Your task to perform on an android device: open sync settings in chrome Image 0: 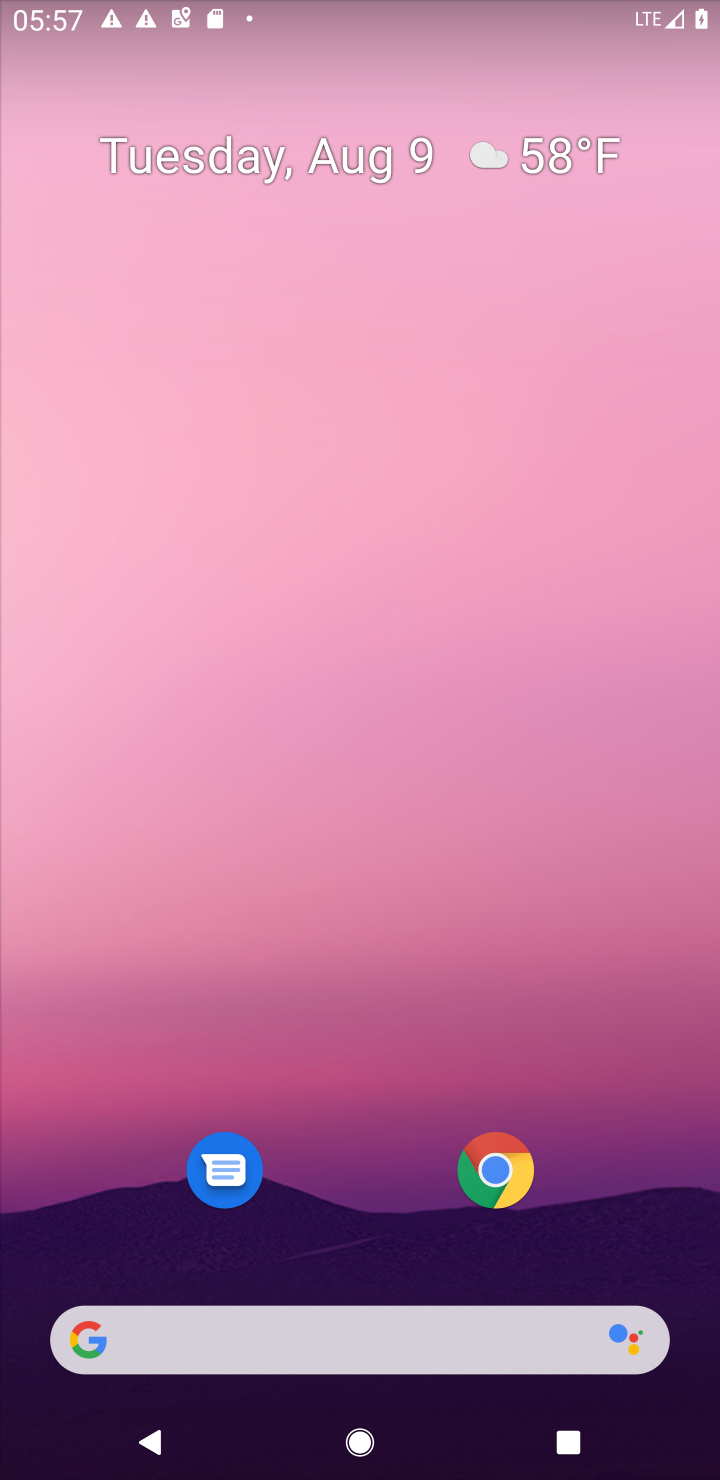
Step 0: press home button
Your task to perform on an android device: open sync settings in chrome Image 1: 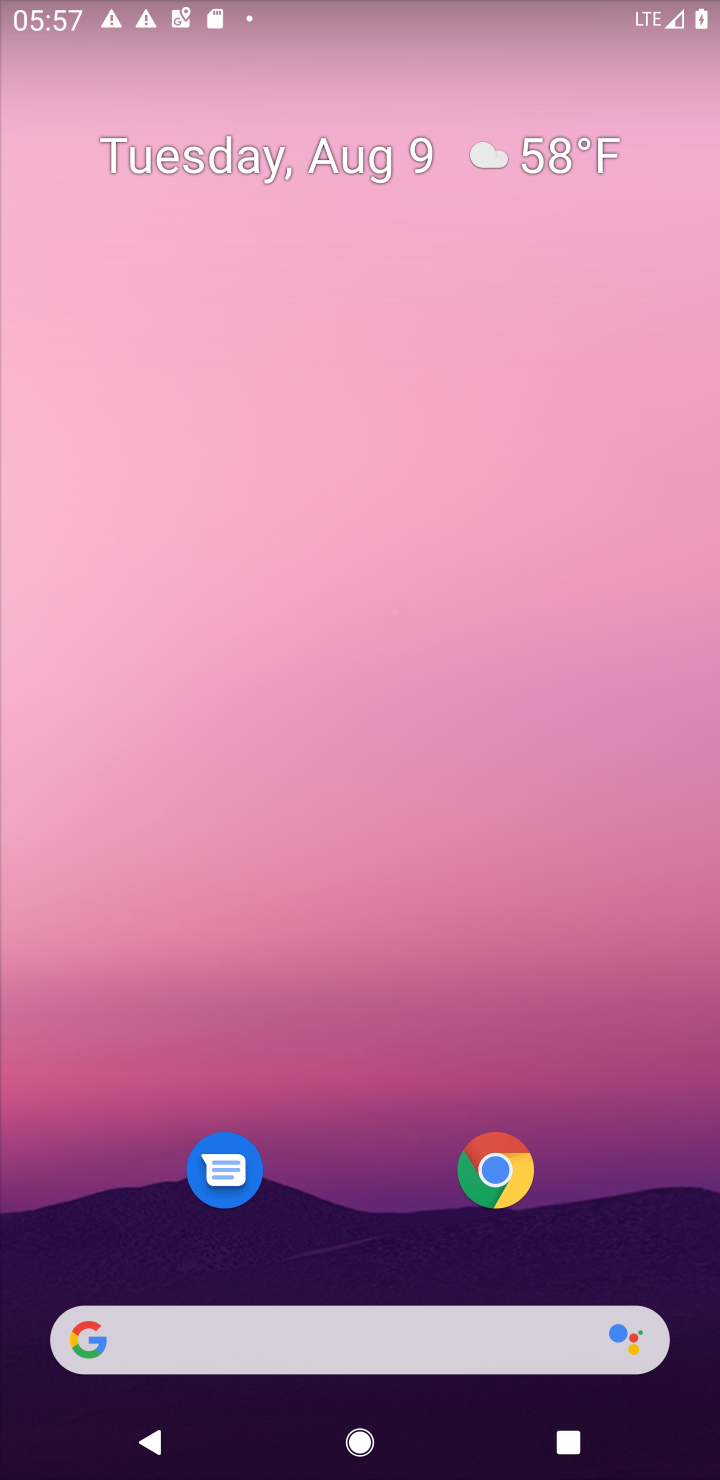
Step 1: drag from (358, 1271) to (456, 6)
Your task to perform on an android device: open sync settings in chrome Image 2: 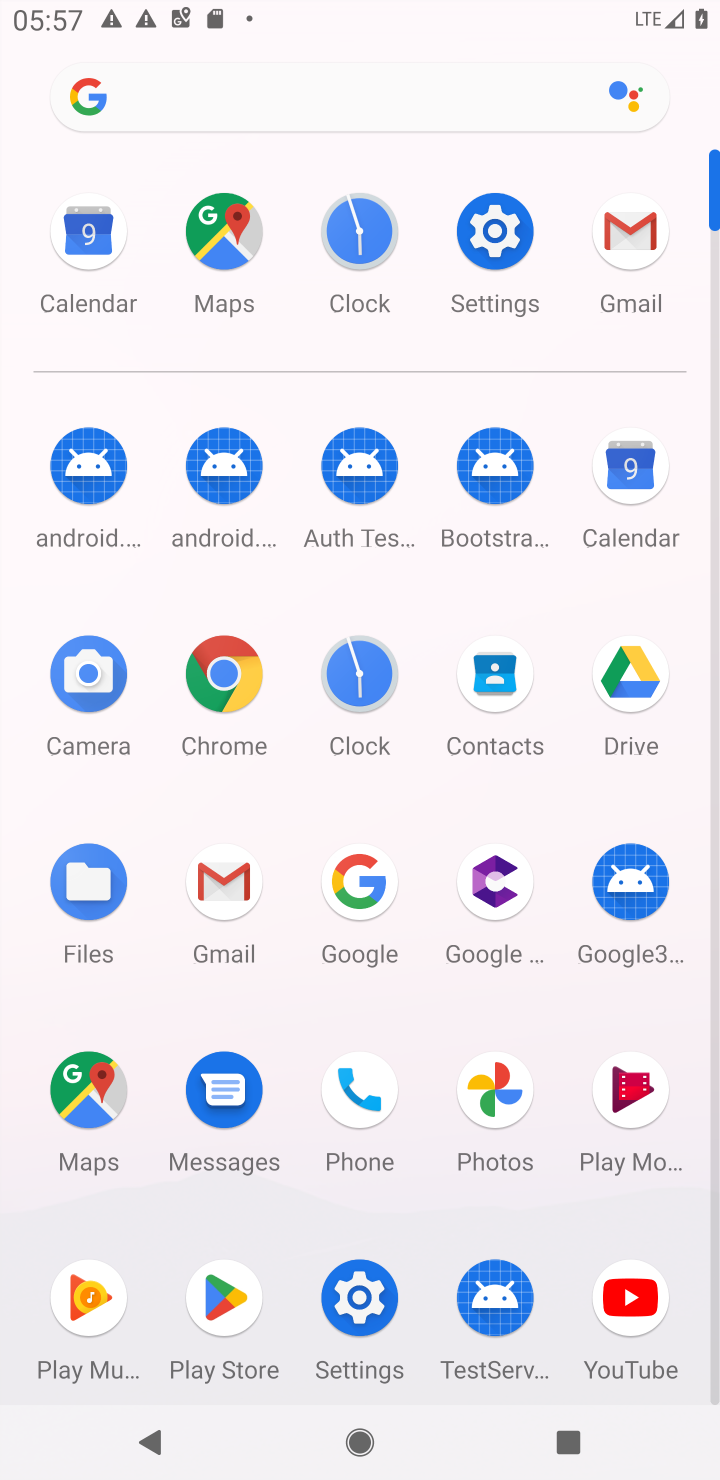
Step 2: click (217, 693)
Your task to perform on an android device: open sync settings in chrome Image 3: 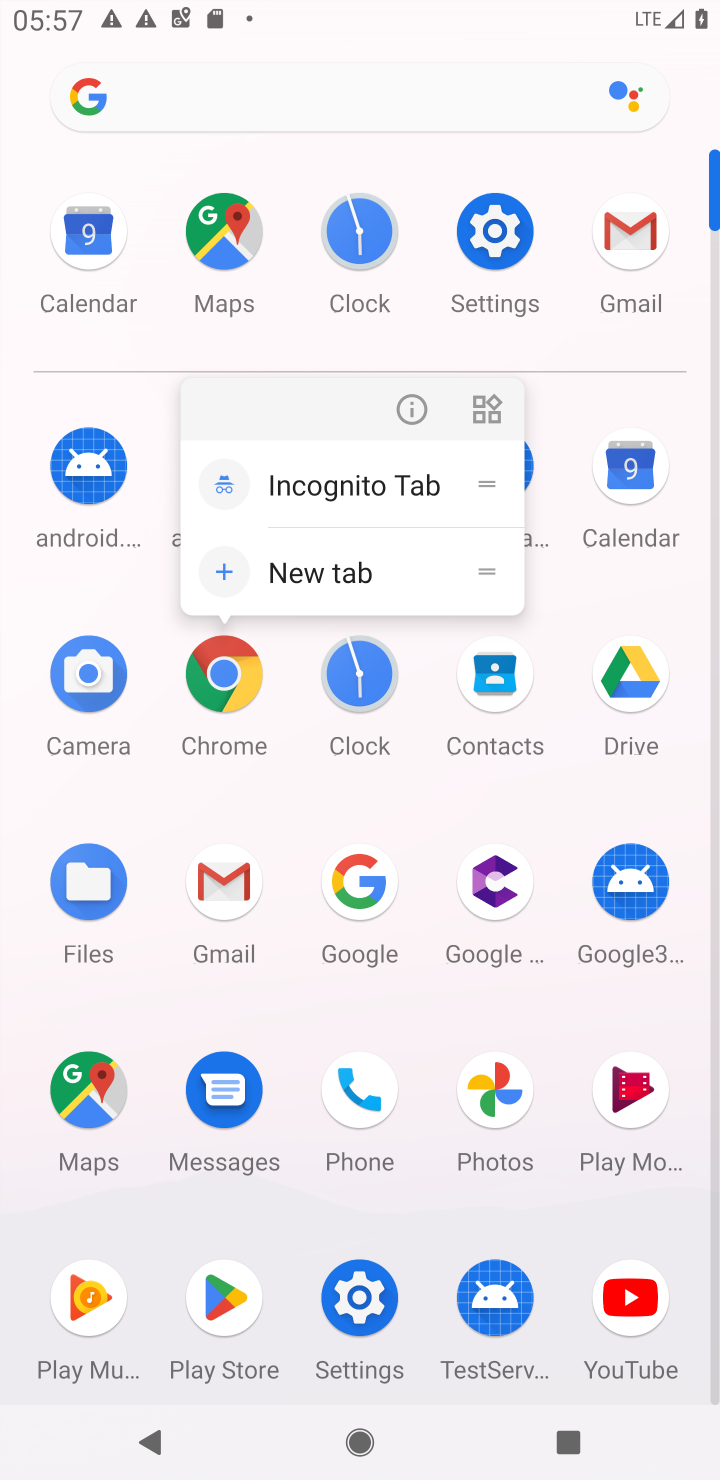
Step 3: click (217, 693)
Your task to perform on an android device: open sync settings in chrome Image 4: 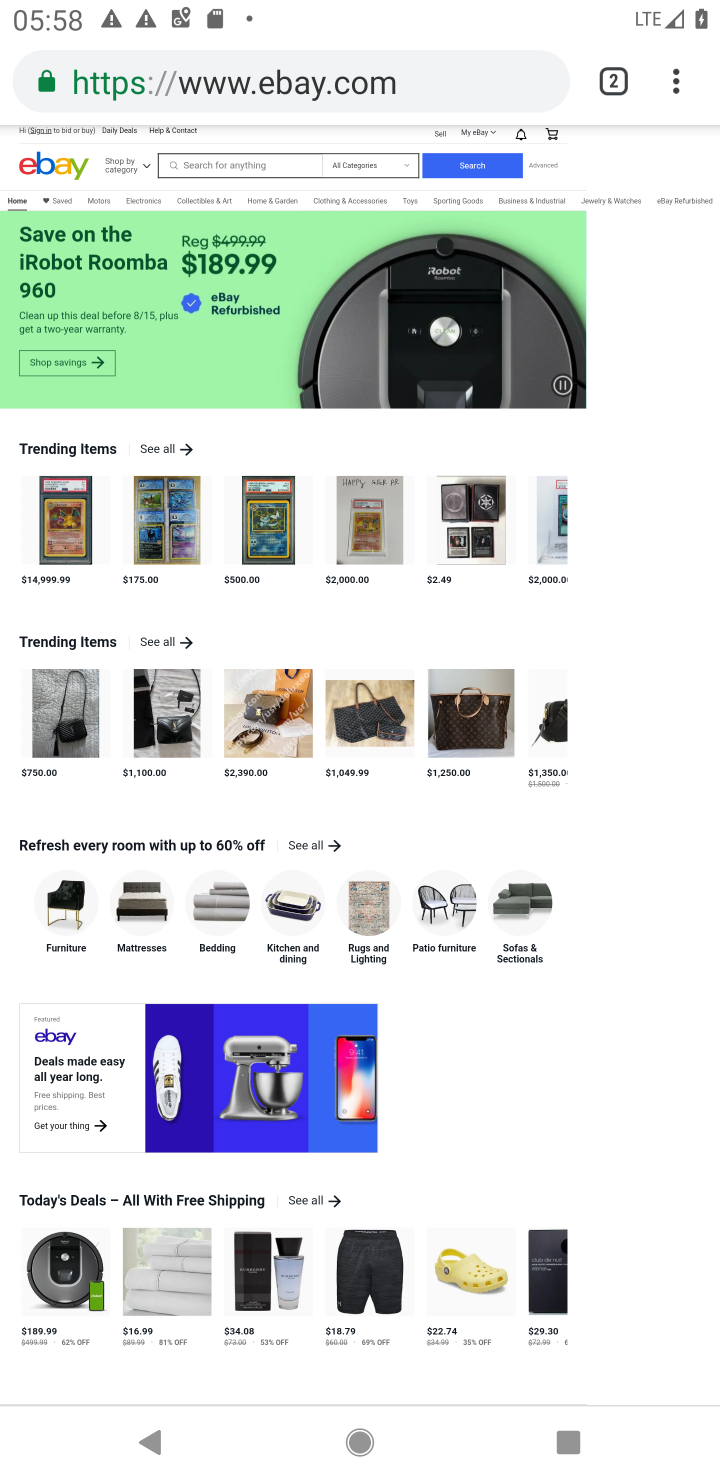
Step 4: drag from (675, 85) to (413, 982)
Your task to perform on an android device: open sync settings in chrome Image 5: 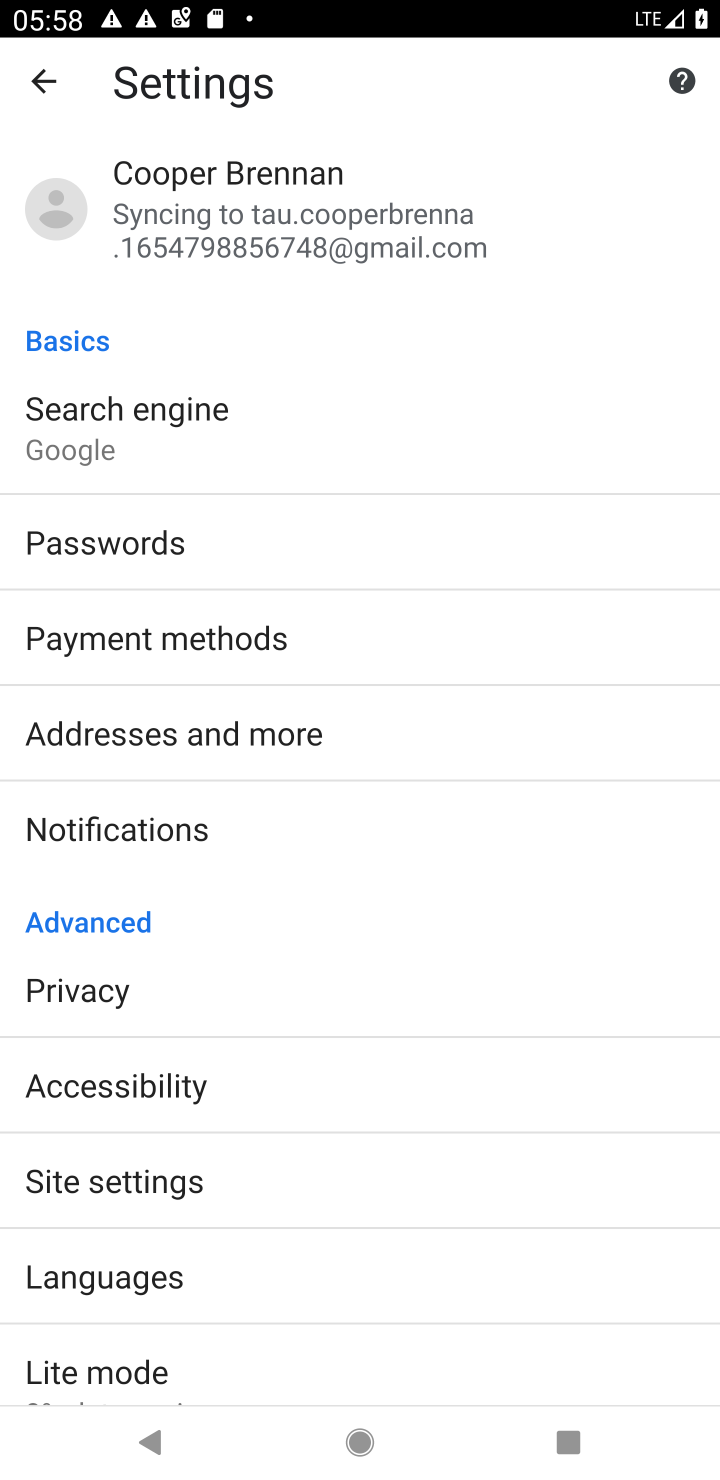
Step 5: click (250, 219)
Your task to perform on an android device: open sync settings in chrome Image 6: 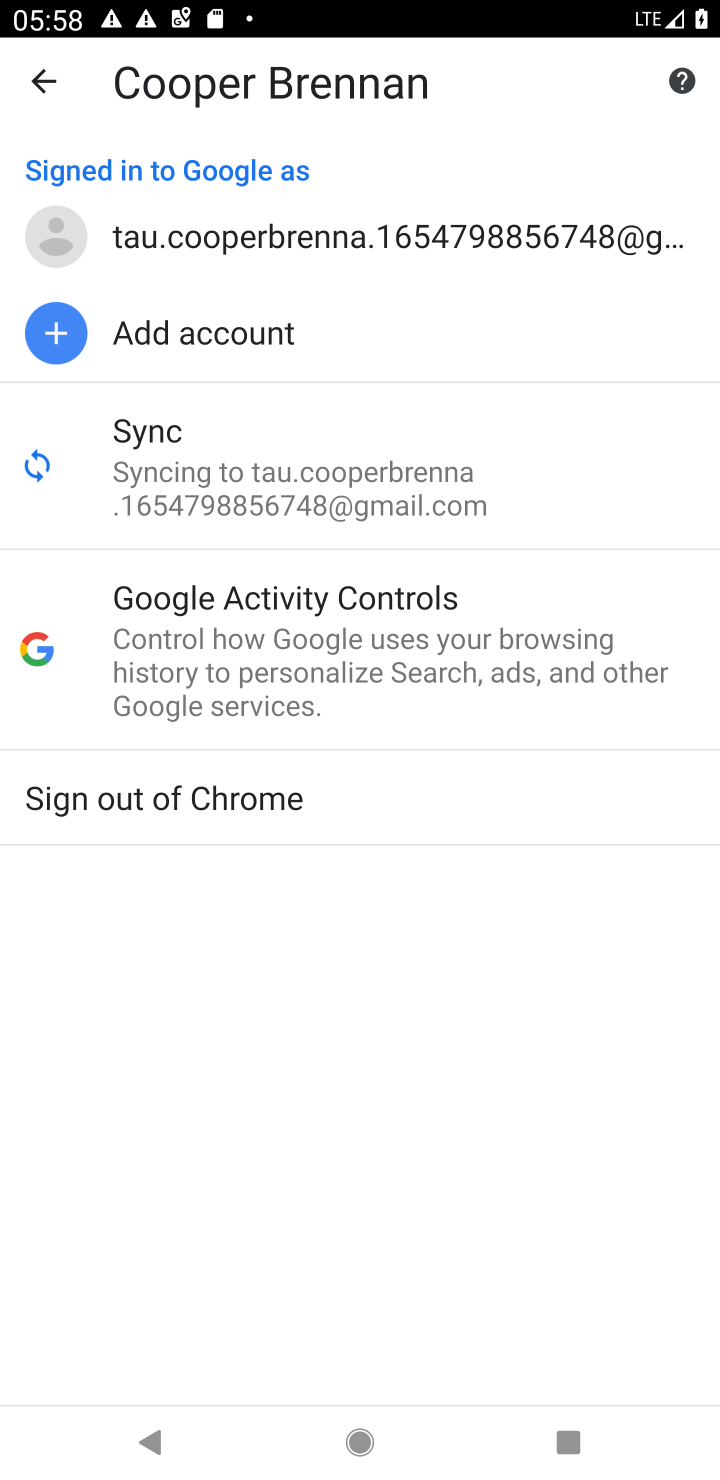
Step 6: click (194, 472)
Your task to perform on an android device: open sync settings in chrome Image 7: 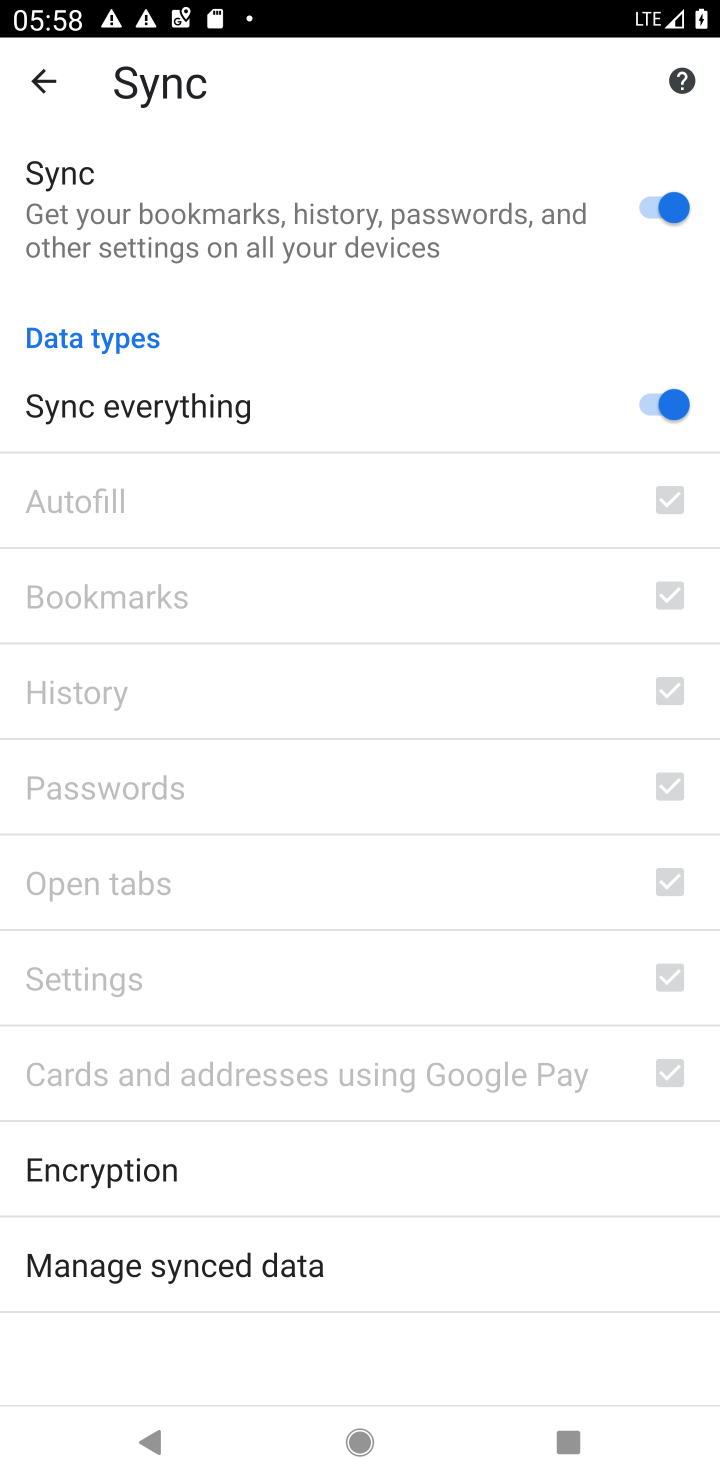
Step 7: task complete